Your task to perform on an android device: Go to wifi settings Image 0: 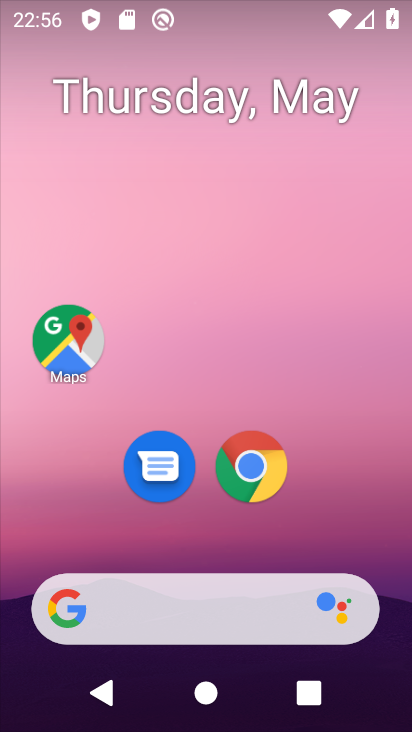
Step 0: drag from (312, 451) to (332, 1)
Your task to perform on an android device: Go to wifi settings Image 1: 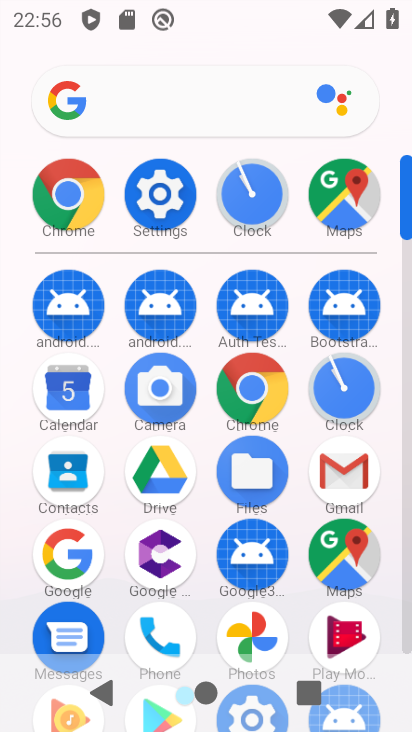
Step 1: click (158, 175)
Your task to perform on an android device: Go to wifi settings Image 2: 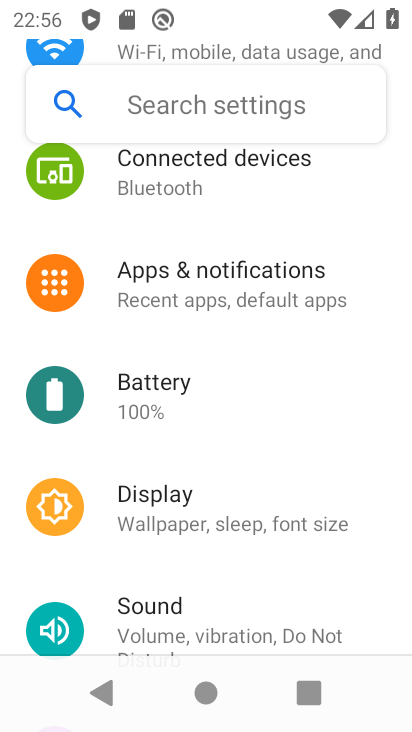
Step 2: drag from (247, 259) to (276, 645)
Your task to perform on an android device: Go to wifi settings Image 3: 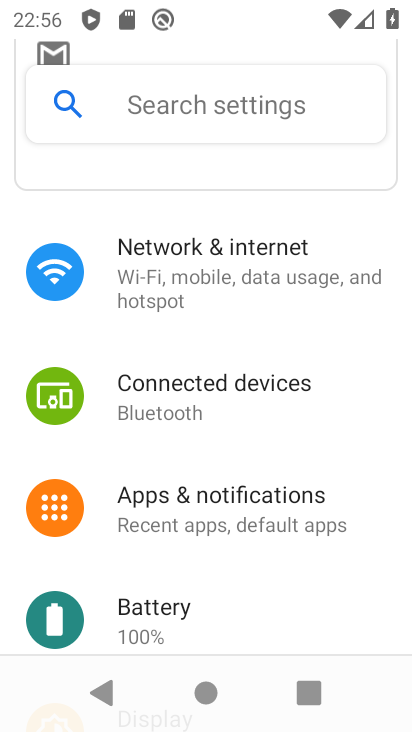
Step 3: click (194, 272)
Your task to perform on an android device: Go to wifi settings Image 4: 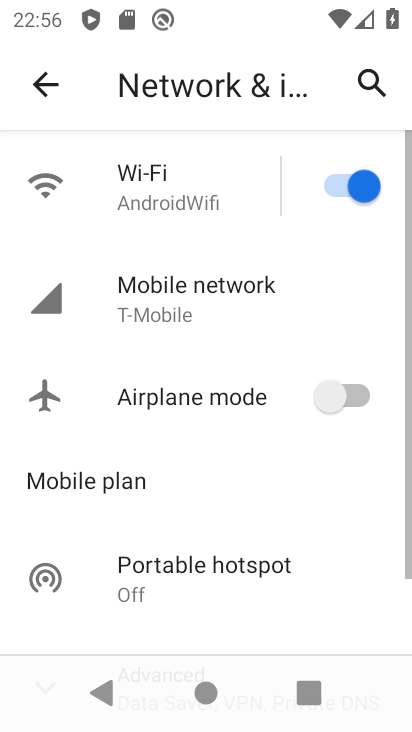
Step 4: click (183, 182)
Your task to perform on an android device: Go to wifi settings Image 5: 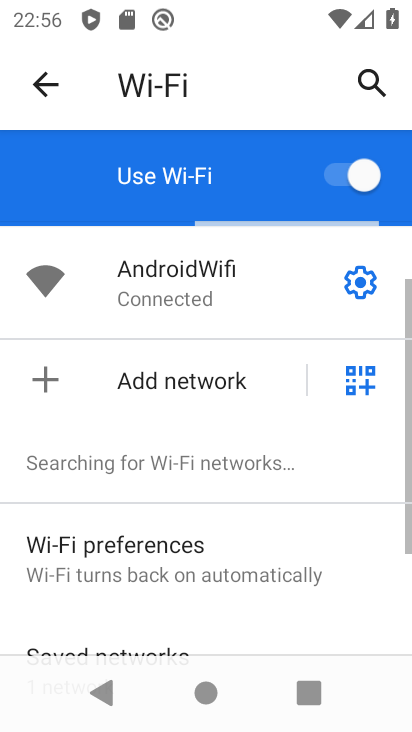
Step 5: click (364, 284)
Your task to perform on an android device: Go to wifi settings Image 6: 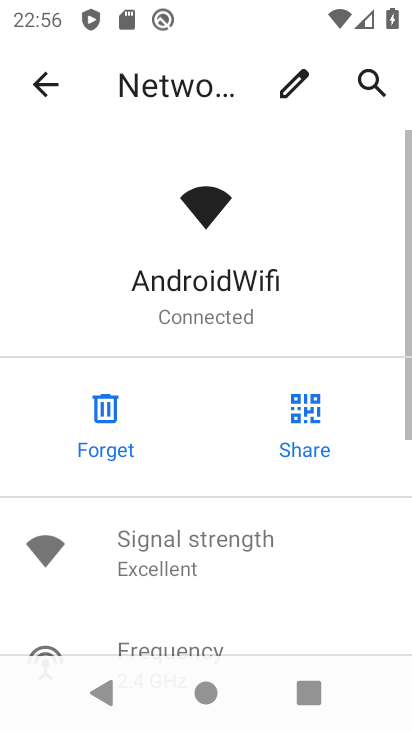
Step 6: task complete